Your task to perform on an android device: set the stopwatch Image 0: 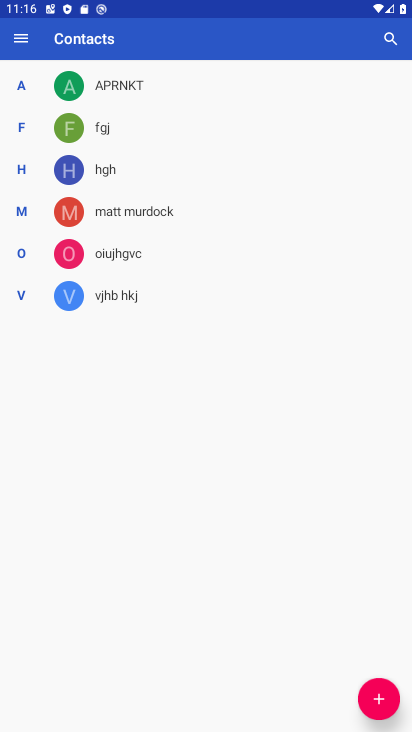
Step 0: press home button
Your task to perform on an android device: set the stopwatch Image 1: 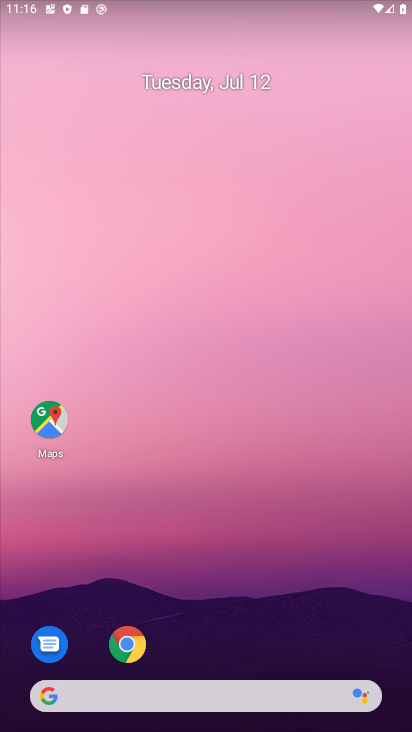
Step 1: drag from (227, 699) to (237, 47)
Your task to perform on an android device: set the stopwatch Image 2: 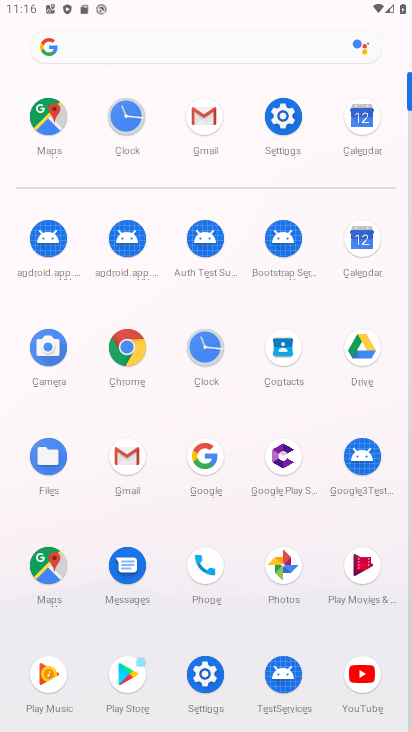
Step 2: click (122, 112)
Your task to perform on an android device: set the stopwatch Image 3: 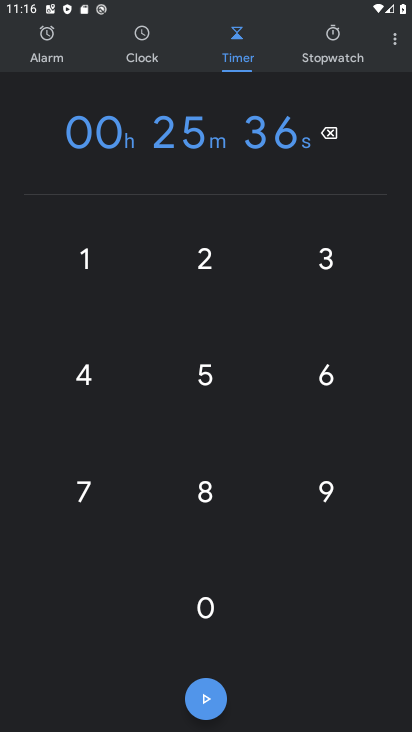
Step 3: click (334, 43)
Your task to perform on an android device: set the stopwatch Image 4: 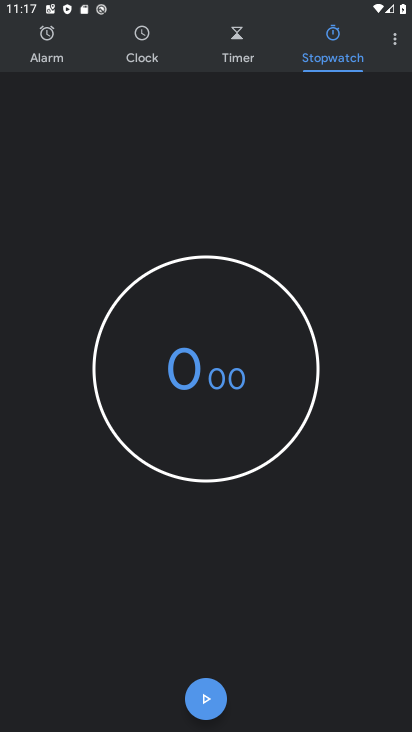
Step 4: task complete